Your task to perform on an android device: turn off sleep mode Image 0: 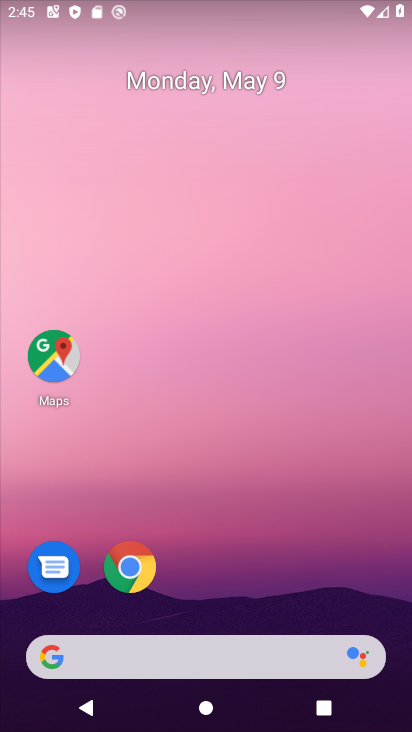
Step 0: drag from (226, 598) to (173, 53)
Your task to perform on an android device: turn off sleep mode Image 1: 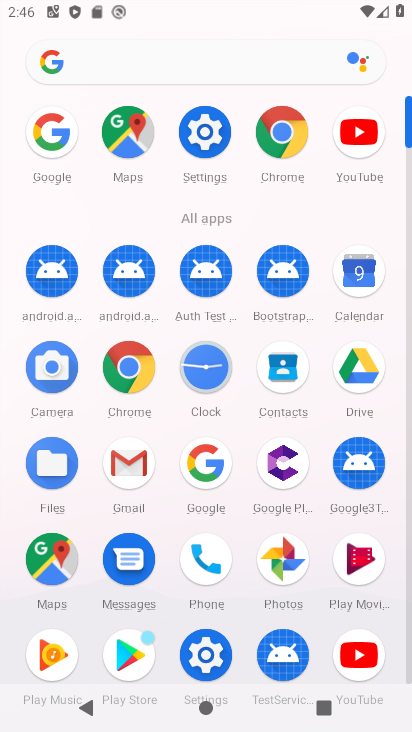
Step 1: click (192, 138)
Your task to perform on an android device: turn off sleep mode Image 2: 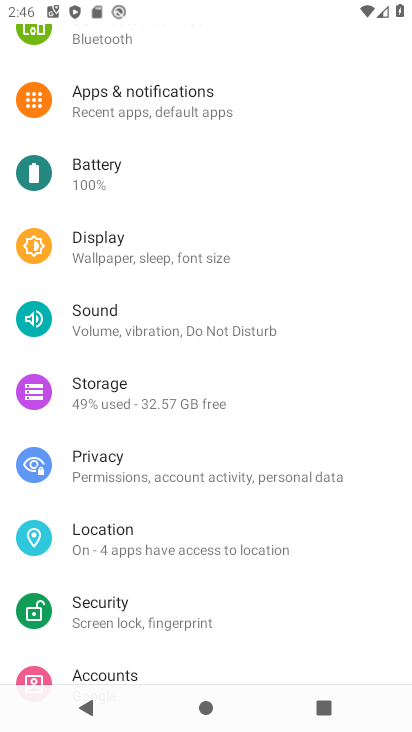
Step 2: click (114, 250)
Your task to perform on an android device: turn off sleep mode Image 3: 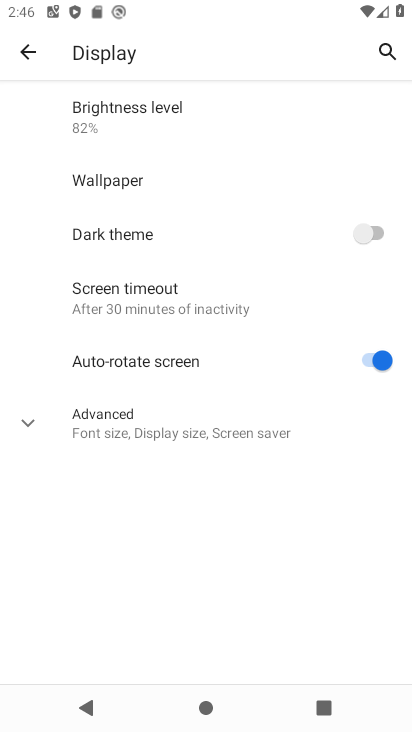
Step 3: click (228, 425)
Your task to perform on an android device: turn off sleep mode Image 4: 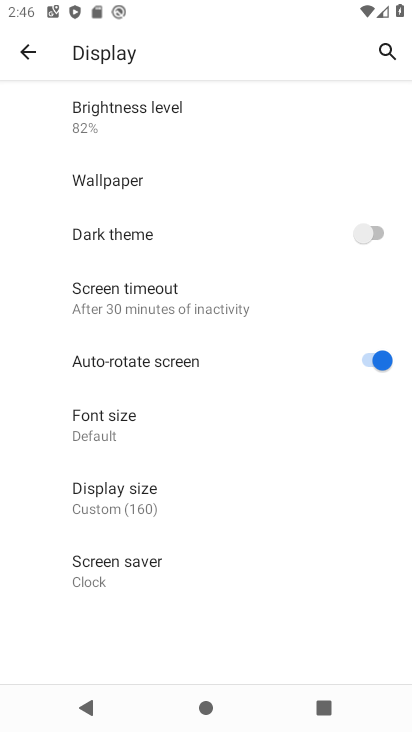
Step 4: task complete